Your task to perform on an android device: turn off improve location accuracy Image 0: 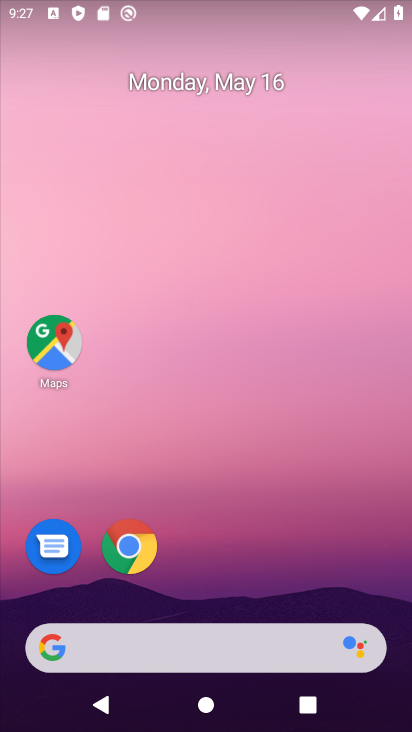
Step 0: drag from (154, 599) to (229, 61)
Your task to perform on an android device: turn off improve location accuracy Image 1: 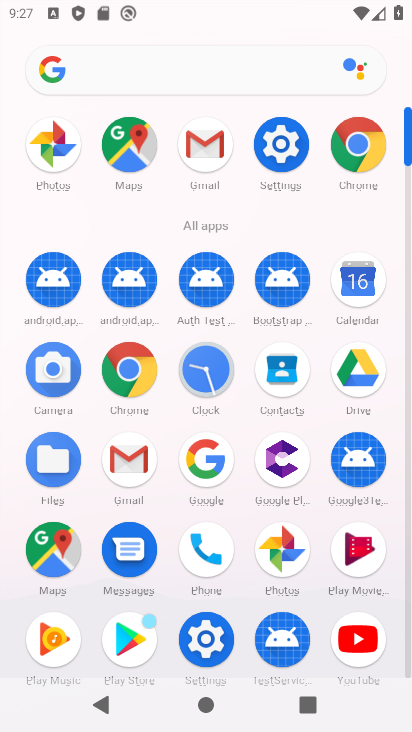
Step 1: click (259, 139)
Your task to perform on an android device: turn off improve location accuracy Image 2: 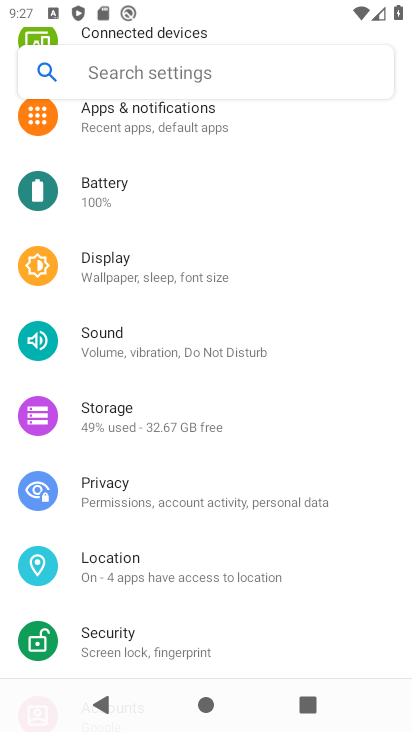
Step 2: click (194, 581)
Your task to perform on an android device: turn off improve location accuracy Image 3: 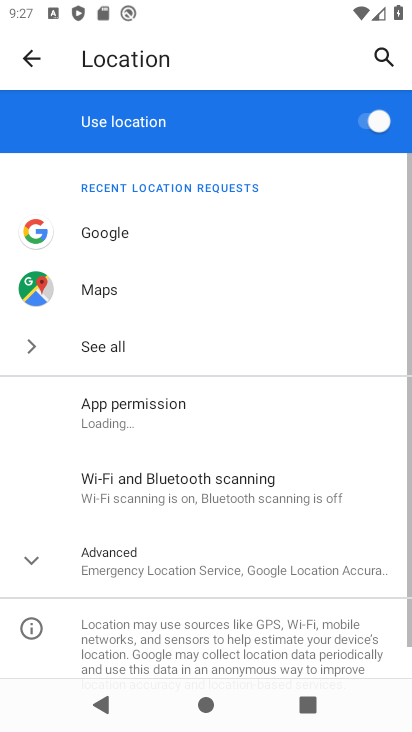
Step 3: click (194, 581)
Your task to perform on an android device: turn off improve location accuracy Image 4: 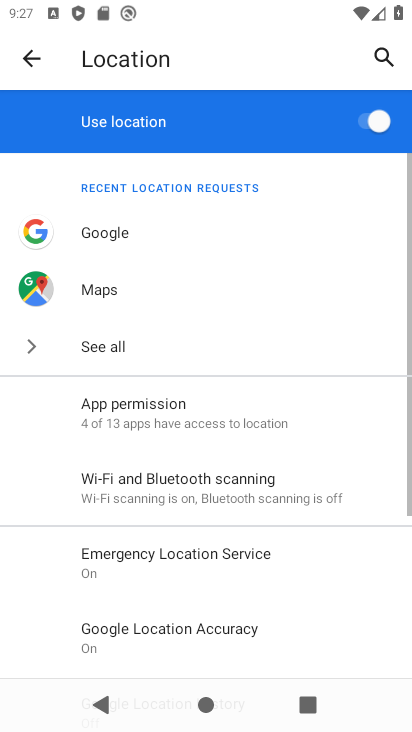
Step 4: click (144, 637)
Your task to perform on an android device: turn off improve location accuracy Image 5: 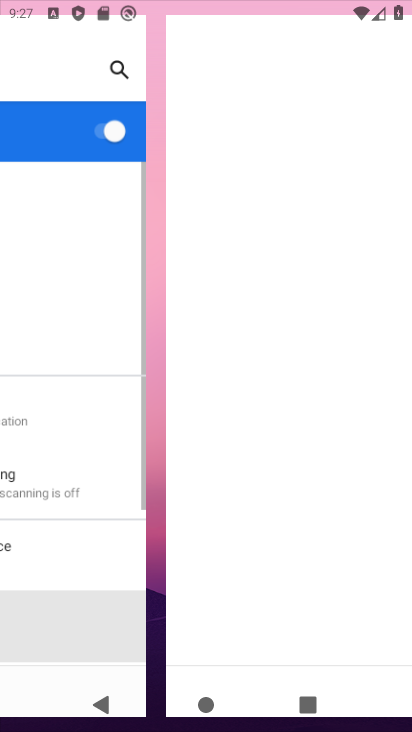
Step 5: click (144, 637)
Your task to perform on an android device: turn off improve location accuracy Image 6: 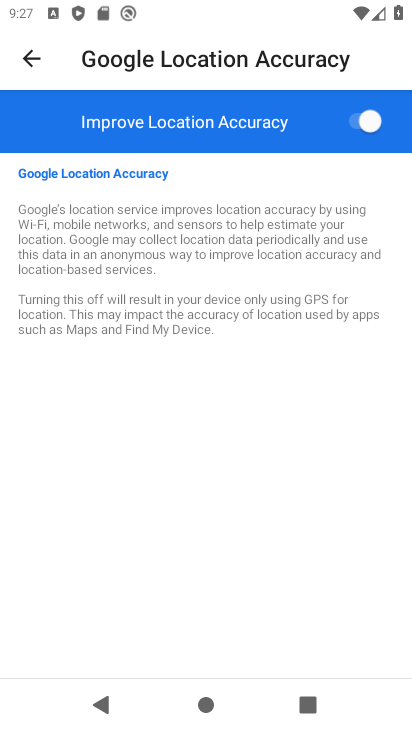
Step 6: click (358, 118)
Your task to perform on an android device: turn off improve location accuracy Image 7: 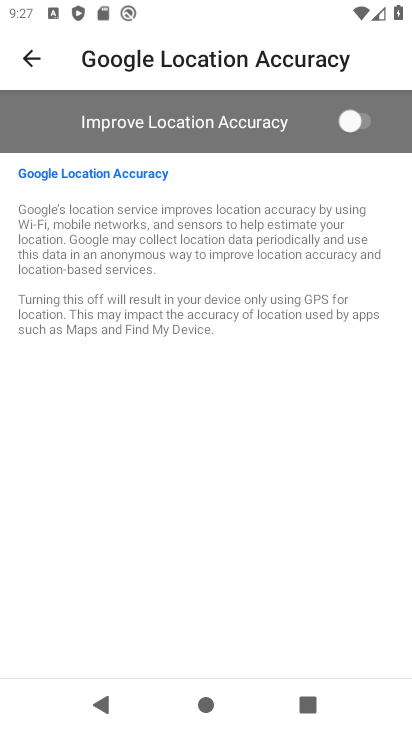
Step 7: task complete